Your task to perform on an android device: Open Maps and search for coffee Image 0: 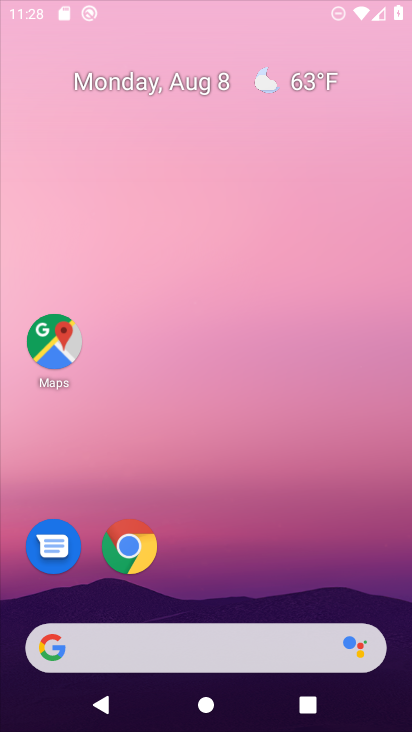
Step 0: press home button
Your task to perform on an android device: Open Maps and search for coffee Image 1: 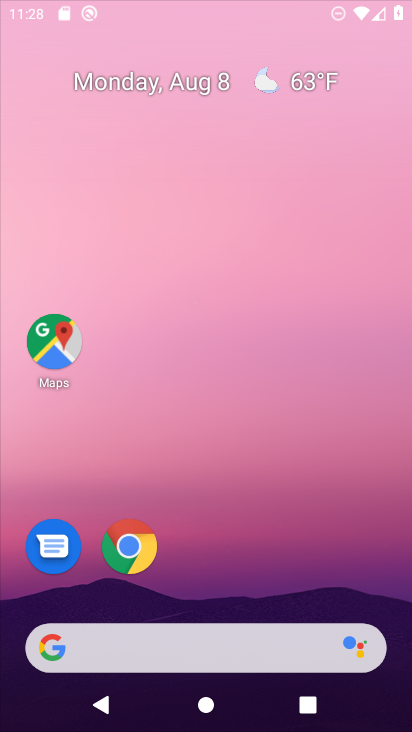
Step 1: drag from (210, 602) to (209, 202)
Your task to perform on an android device: Open Maps and search for coffee Image 2: 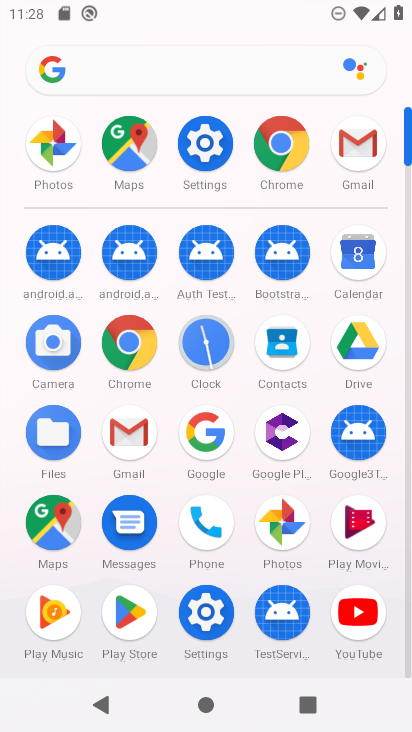
Step 2: click (51, 518)
Your task to perform on an android device: Open Maps and search for coffee Image 3: 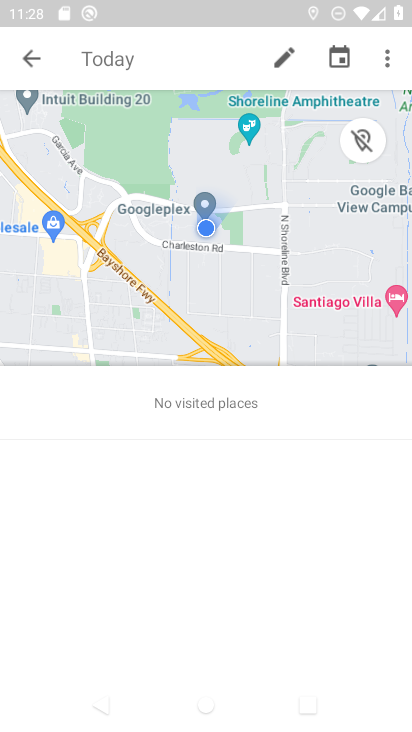
Step 3: click (30, 65)
Your task to perform on an android device: Open Maps and search for coffee Image 4: 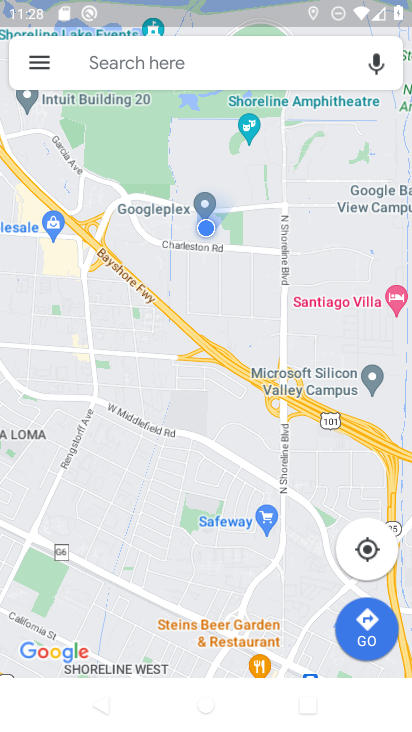
Step 4: click (173, 57)
Your task to perform on an android device: Open Maps and search for coffee Image 5: 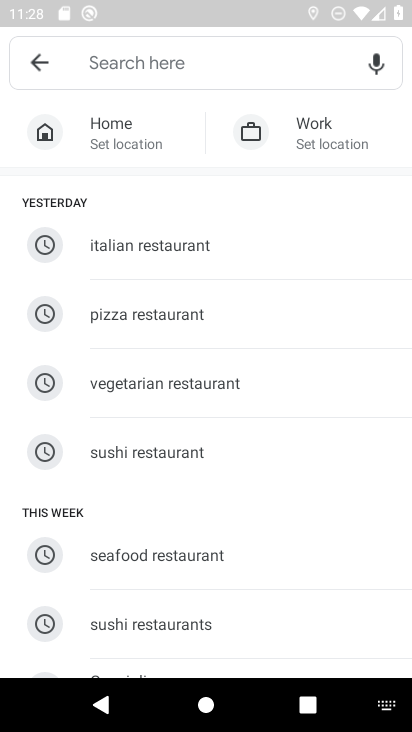
Step 5: drag from (207, 580) to (180, 265)
Your task to perform on an android device: Open Maps and search for coffee Image 6: 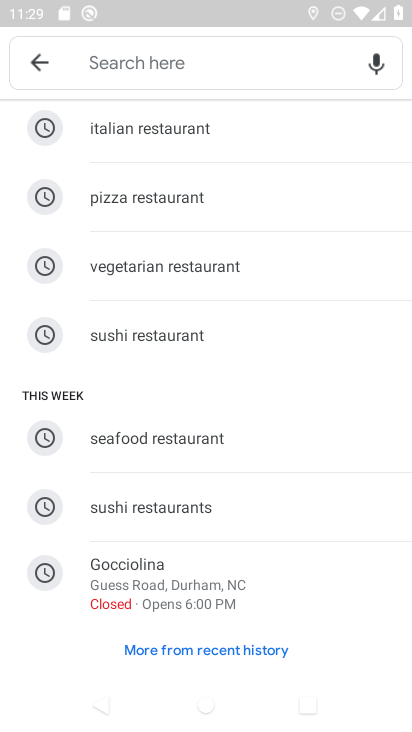
Step 6: drag from (174, 178) to (168, 563)
Your task to perform on an android device: Open Maps and search for coffee Image 7: 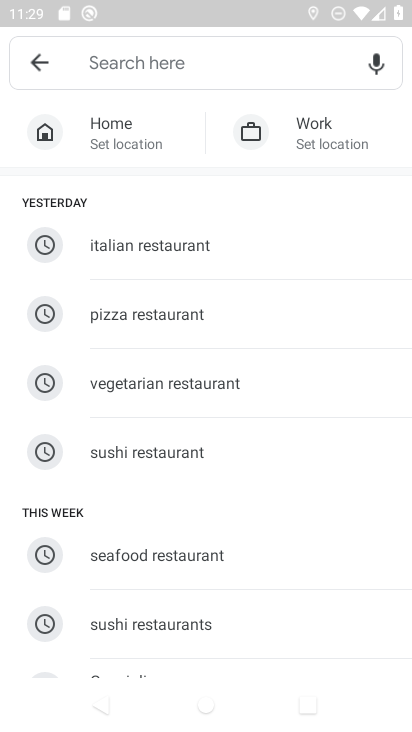
Step 7: type "coffee"
Your task to perform on an android device: Open Maps and search for coffee Image 8: 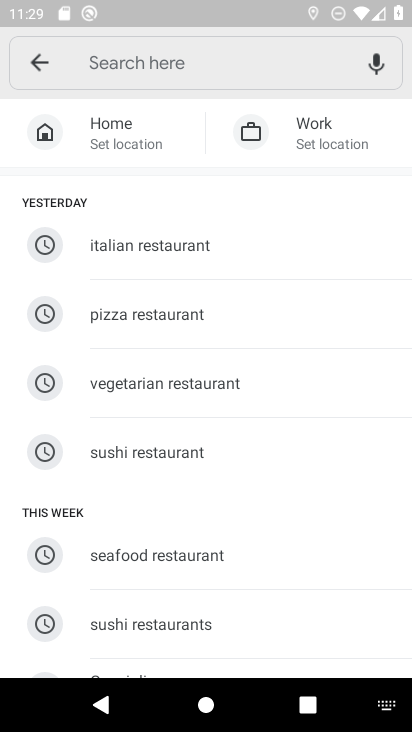
Step 8: click (119, 55)
Your task to perform on an android device: Open Maps and search for coffee Image 9: 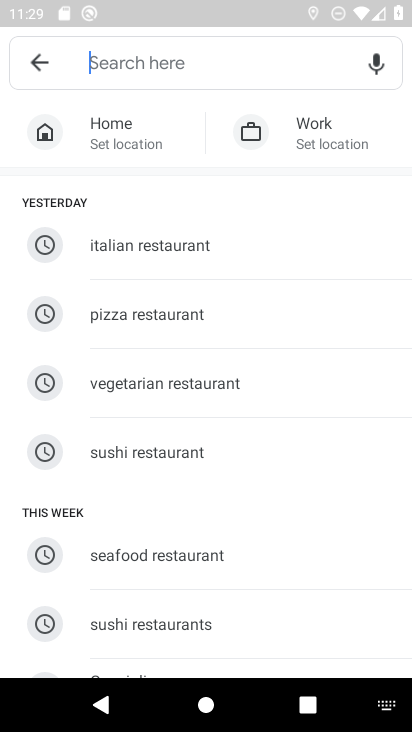
Step 9: type "coffee"
Your task to perform on an android device: Open Maps and search for coffee Image 10: 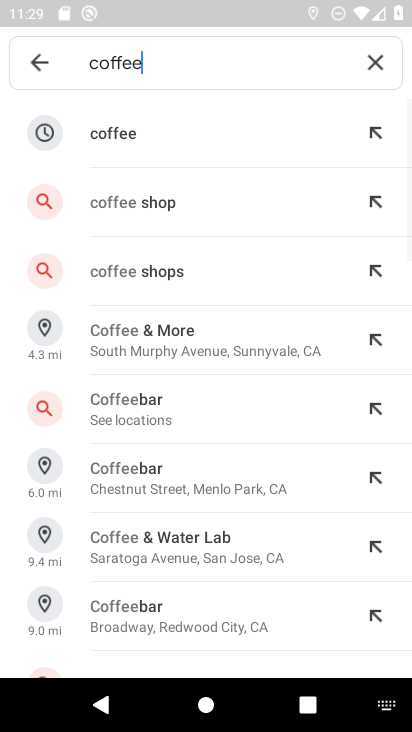
Step 10: click (124, 127)
Your task to perform on an android device: Open Maps and search for coffee Image 11: 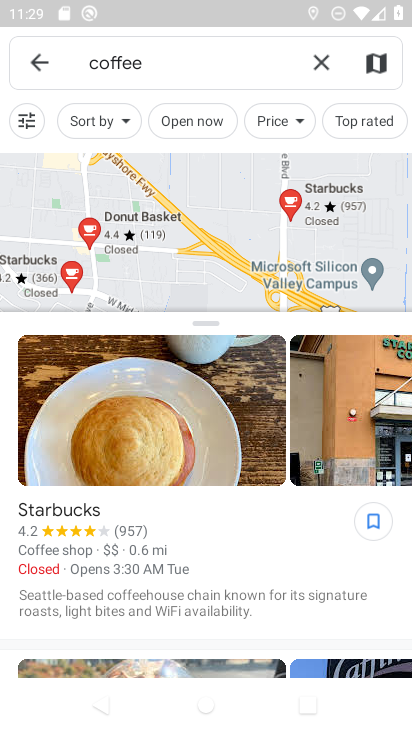
Step 11: task complete